Your task to perform on an android device: Search for pizza restaurants on Maps Image 0: 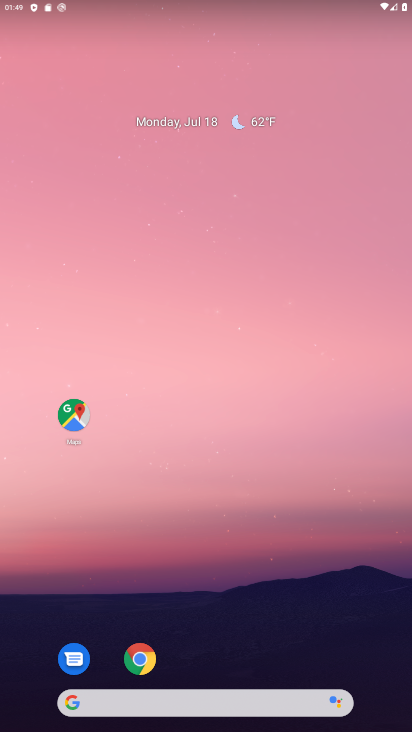
Step 0: drag from (280, 616) to (277, 134)
Your task to perform on an android device: Search for pizza restaurants on Maps Image 1: 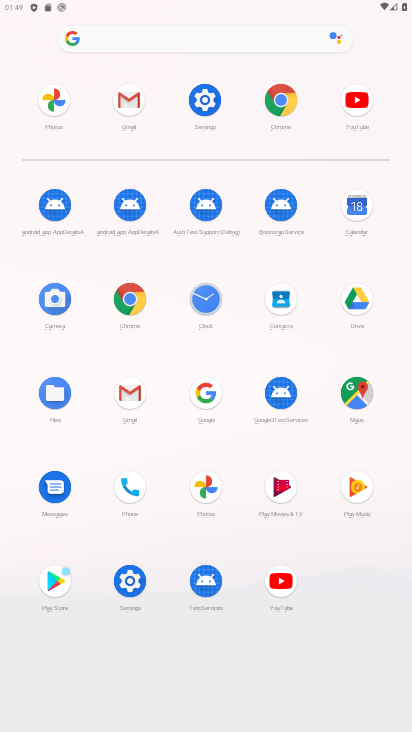
Step 1: click (359, 390)
Your task to perform on an android device: Search for pizza restaurants on Maps Image 2: 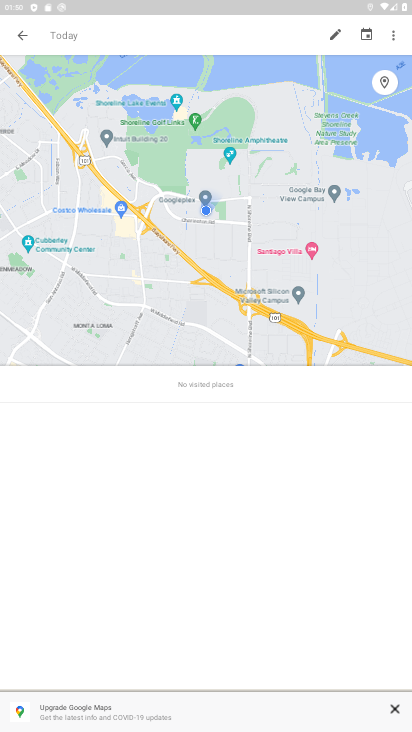
Step 2: click (20, 24)
Your task to perform on an android device: Search for pizza restaurants on Maps Image 3: 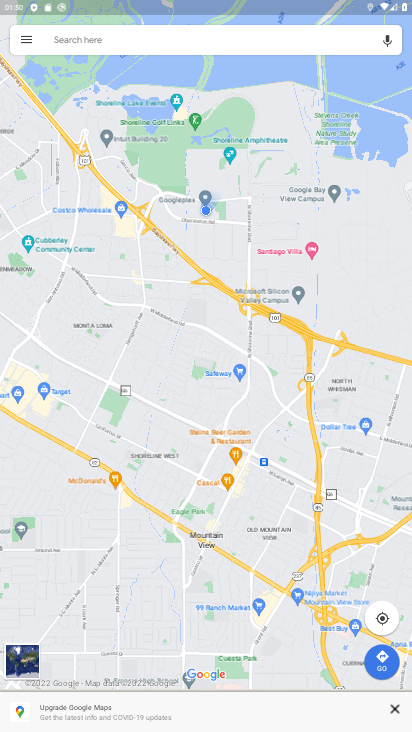
Step 3: click (215, 45)
Your task to perform on an android device: Search for pizza restaurants on Maps Image 4: 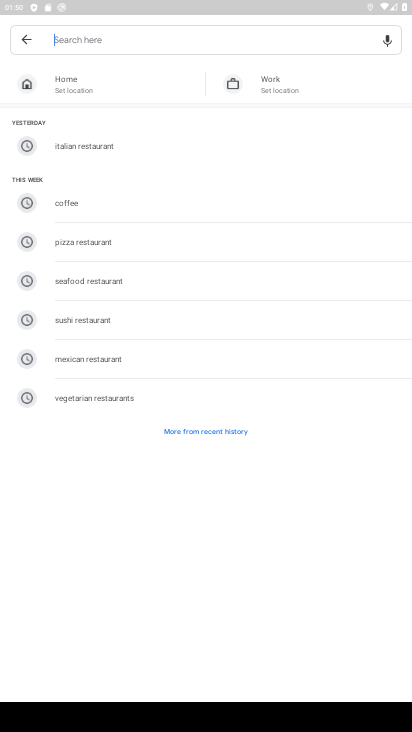
Step 4: type "pizza restaurants"
Your task to perform on an android device: Search for pizza restaurants on Maps Image 5: 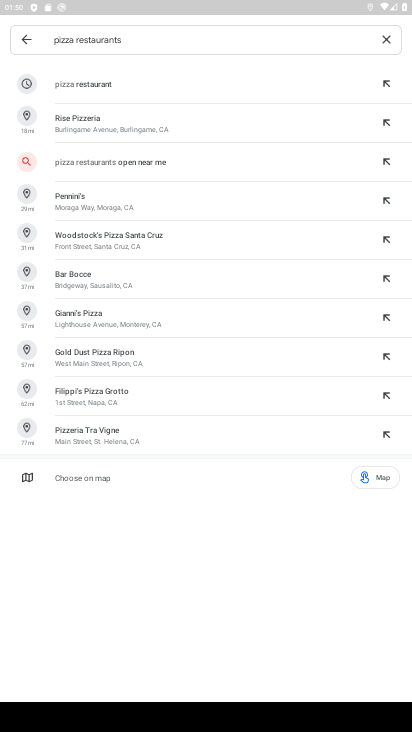
Step 5: press enter
Your task to perform on an android device: Search for pizza restaurants on Maps Image 6: 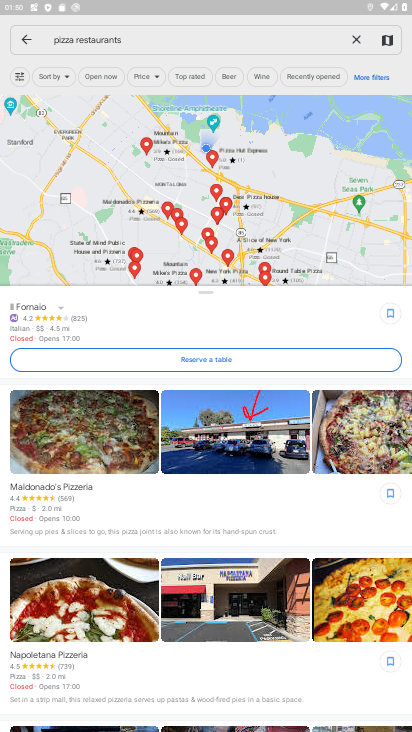
Step 6: task complete